Your task to perform on an android device: delete browsing data in the chrome app Image 0: 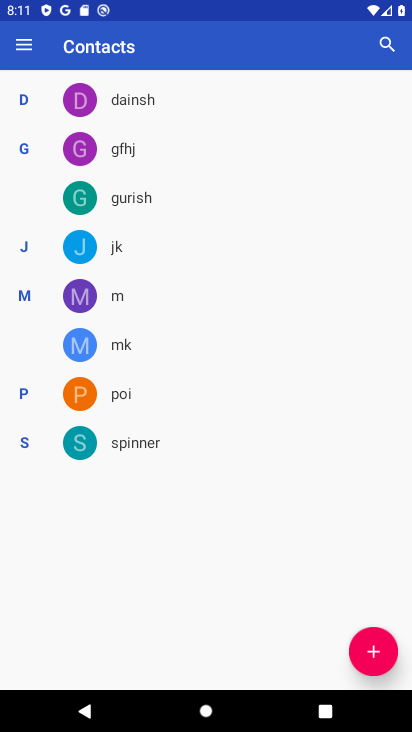
Step 0: press home button
Your task to perform on an android device: delete browsing data in the chrome app Image 1: 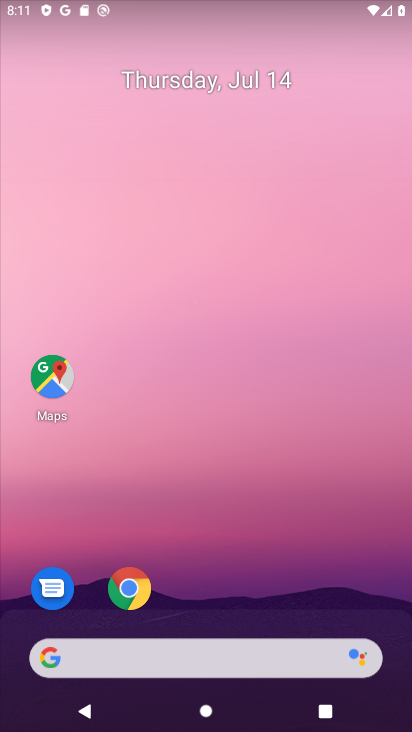
Step 1: click (132, 599)
Your task to perform on an android device: delete browsing data in the chrome app Image 2: 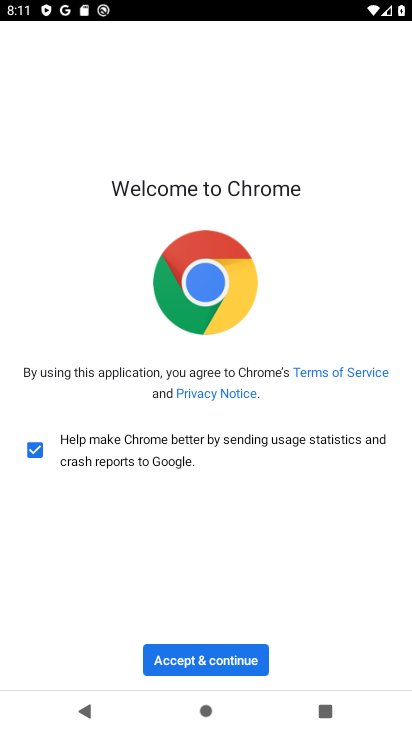
Step 2: click (180, 667)
Your task to perform on an android device: delete browsing data in the chrome app Image 3: 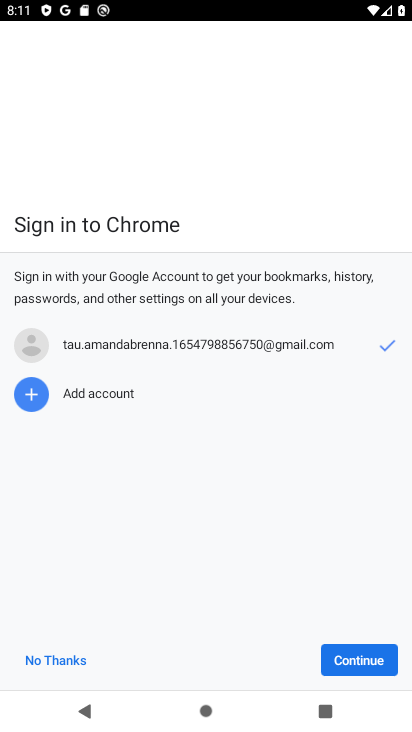
Step 3: click (349, 659)
Your task to perform on an android device: delete browsing data in the chrome app Image 4: 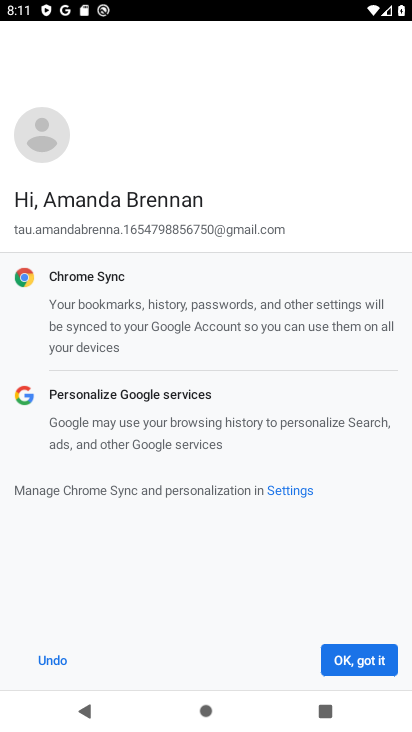
Step 4: click (349, 659)
Your task to perform on an android device: delete browsing data in the chrome app Image 5: 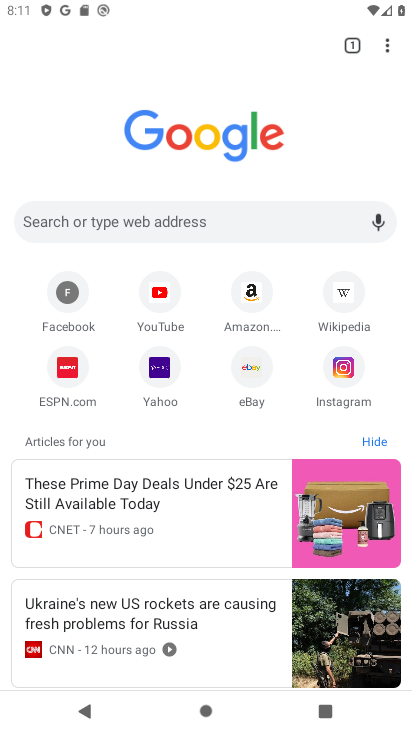
Step 5: click (395, 46)
Your task to perform on an android device: delete browsing data in the chrome app Image 6: 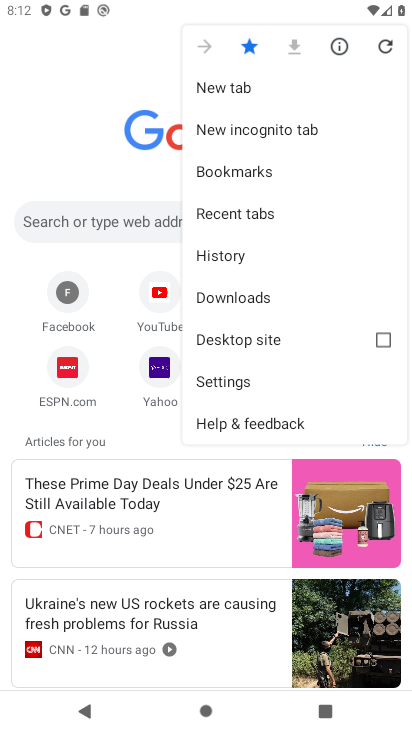
Step 6: click (254, 263)
Your task to perform on an android device: delete browsing data in the chrome app Image 7: 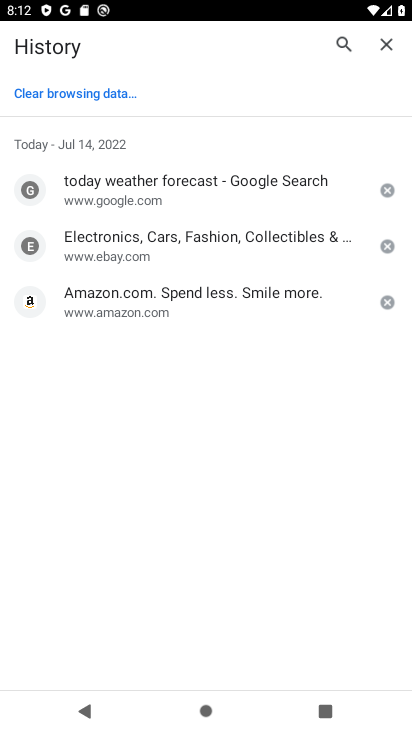
Step 7: click (94, 93)
Your task to perform on an android device: delete browsing data in the chrome app Image 8: 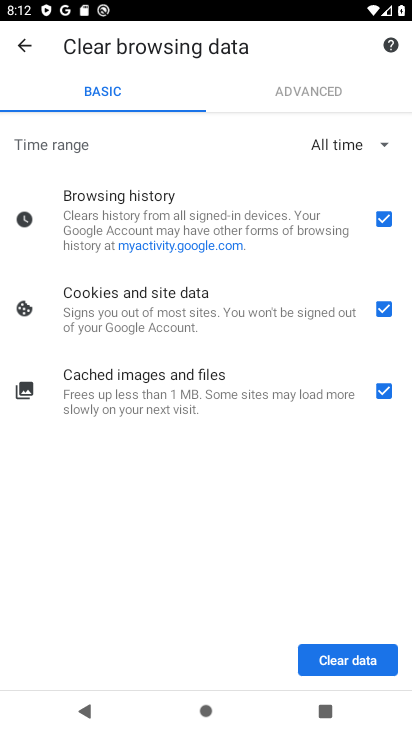
Step 8: click (385, 397)
Your task to perform on an android device: delete browsing data in the chrome app Image 9: 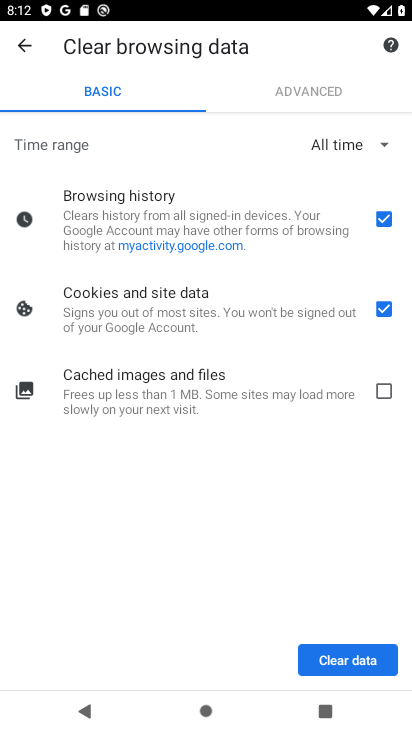
Step 9: click (378, 313)
Your task to perform on an android device: delete browsing data in the chrome app Image 10: 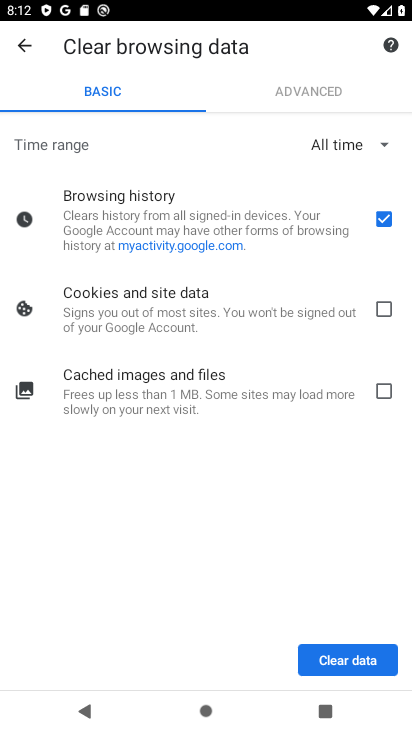
Step 10: click (363, 662)
Your task to perform on an android device: delete browsing data in the chrome app Image 11: 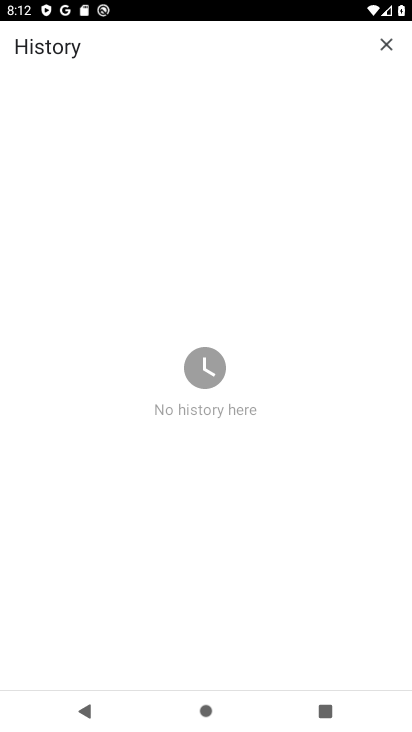
Step 11: task complete